Your task to perform on an android device: open the mobile data screen to see how much data has been used Image 0: 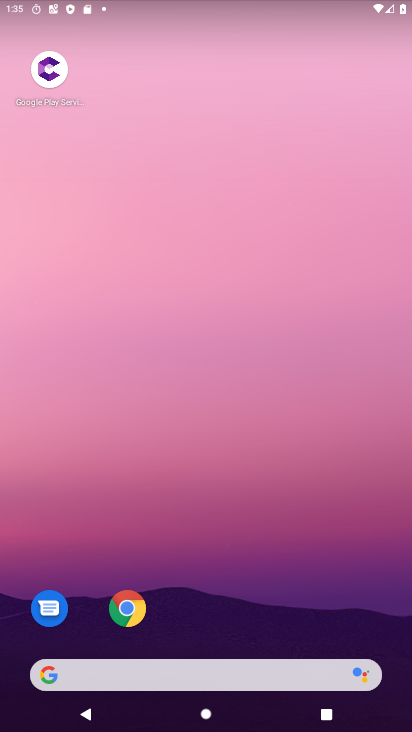
Step 0: drag from (214, 459) to (228, 142)
Your task to perform on an android device: open the mobile data screen to see how much data has been used Image 1: 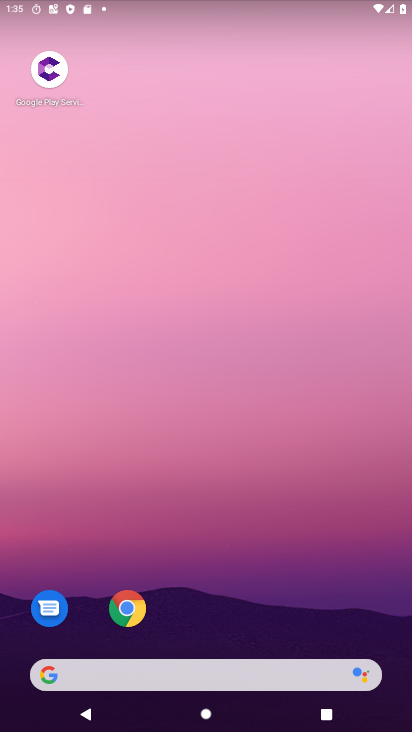
Step 1: drag from (216, 630) to (307, 60)
Your task to perform on an android device: open the mobile data screen to see how much data has been used Image 2: 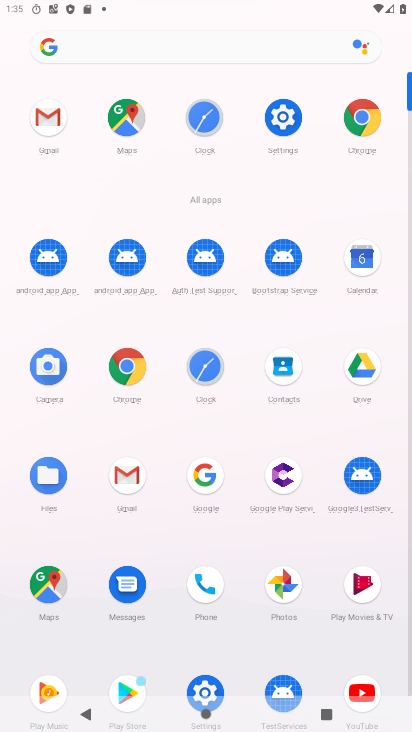
Step 2: click (276, 121)
Your task to perform on an android device: open the mobile data screen to see how much data has been used Image 3: 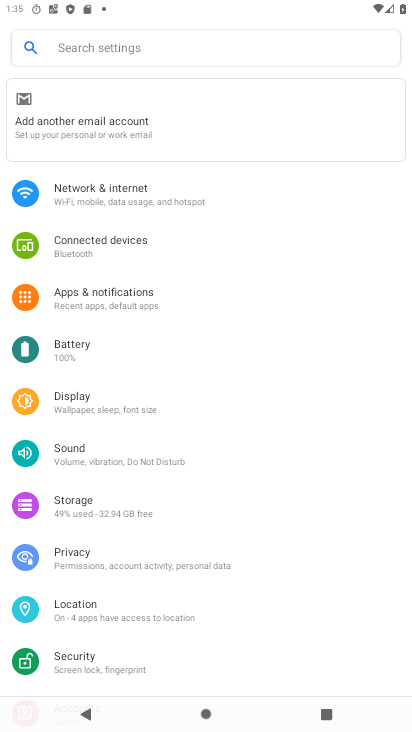
Step 3: click (138, 512)
Your task to perform on an android device: open the mobile data screen to see how much data has been used Image 4: 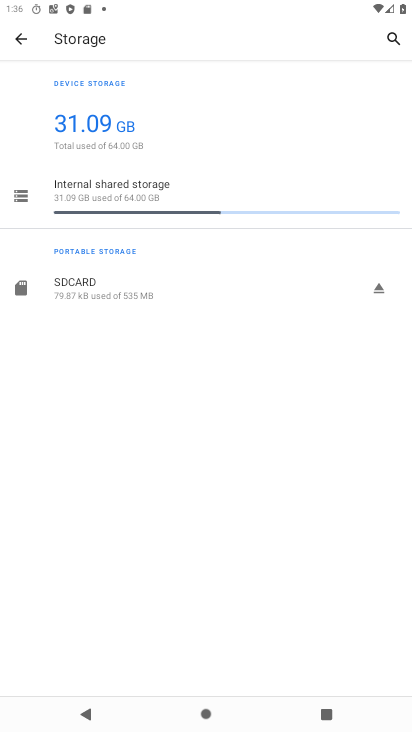
Step 4: task complete